Your task to perform on an android device: check out phone information Image 0: 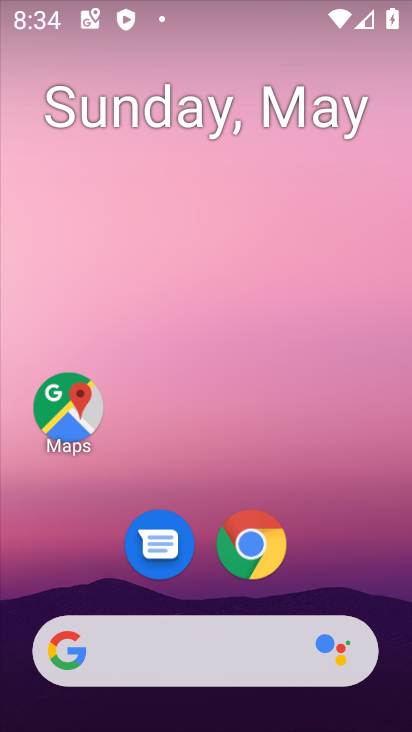
Step 0: drag from (313, 529) to (264, 34)
Your task to perform on an android device: check out phone information Image 1: 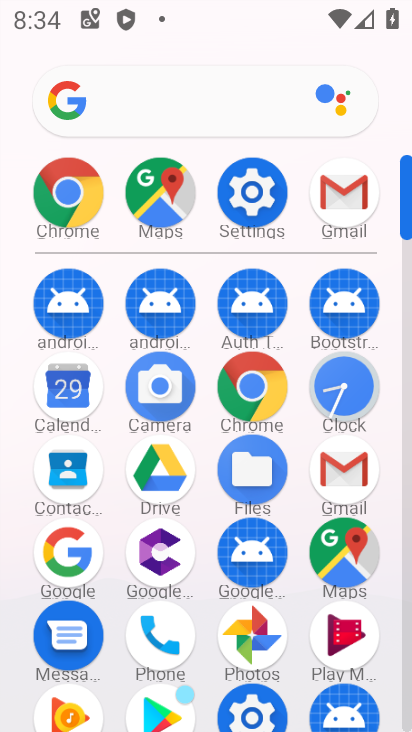
Step 1: drag from (2, 572) to (18, 175)
Your task to perform on an android device: check out phone information Image 2: 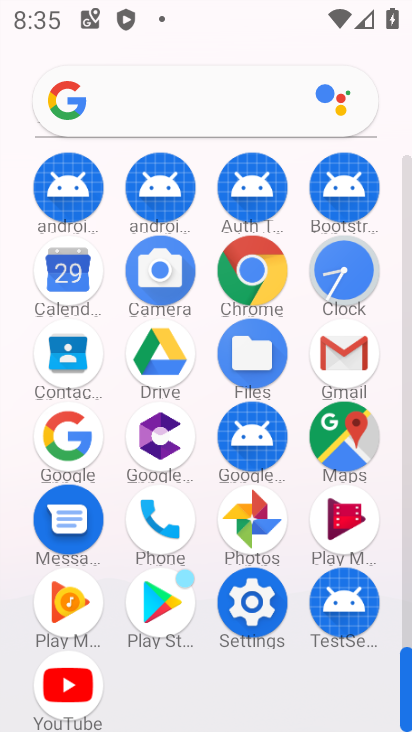
Step 2: click (251, 599)
Your task to perform on an android device: check out phone information Image 3: 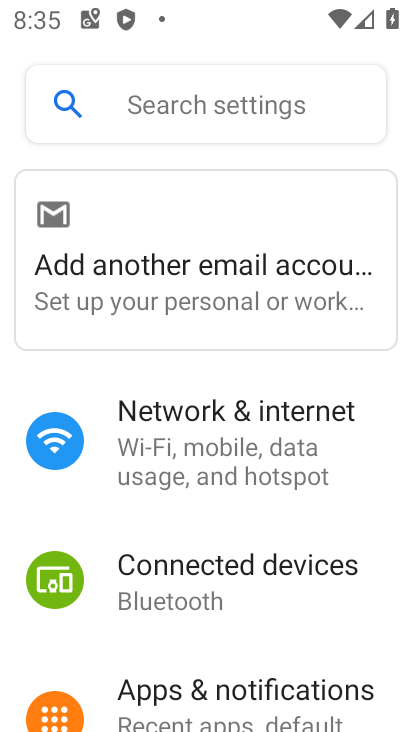
Step 3: drag from (308, 687) to (275, 163)
Your task to perform on an android device: check out phone information Image 4: 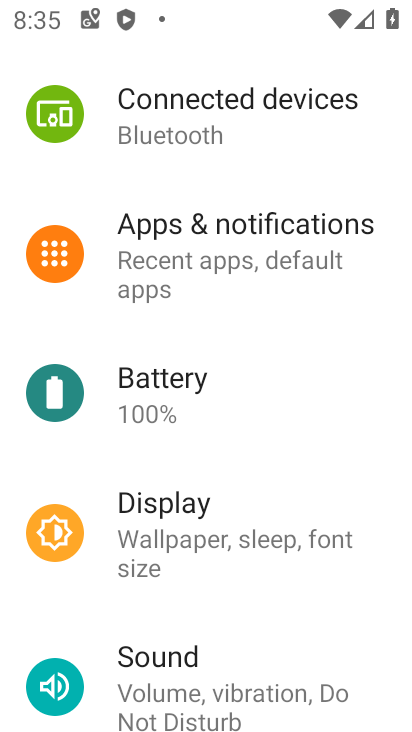
Step 4: drag from (262, 568) to (267, 133)
Your task to perform on an android device: check out phone information Image 5: 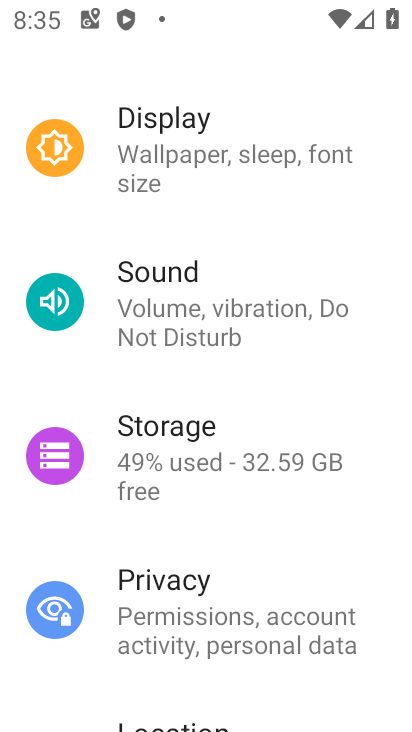
Step 5: drag from (254, 665) to (235, 121)
Your task to perform on an android device: check out phone information Image 6: 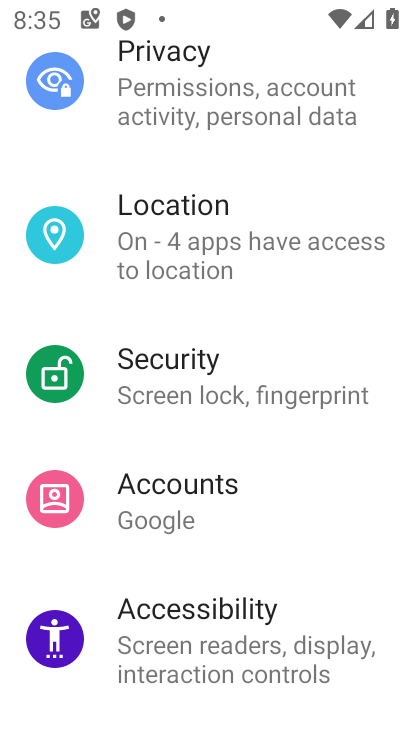
Step 6: drag from (268, 610) to (264, 109)
Your task to perform on an android device: check out phone information Image 7: 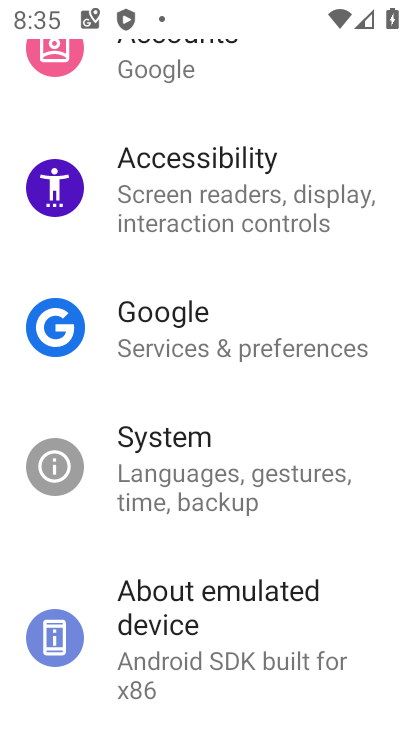
Step 7: drag from (207, 624) to (263, 163)
Your task to perform on an android device: check out phone information Image 8: 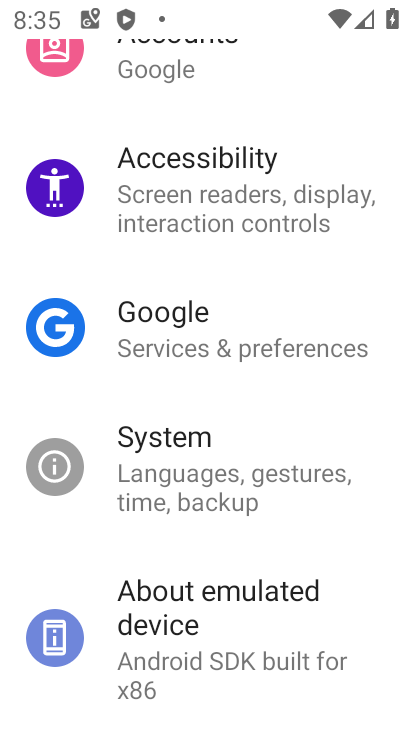
Step 8: click (226, 633)
Your task to perform on an android device: check out phone information Image 9: 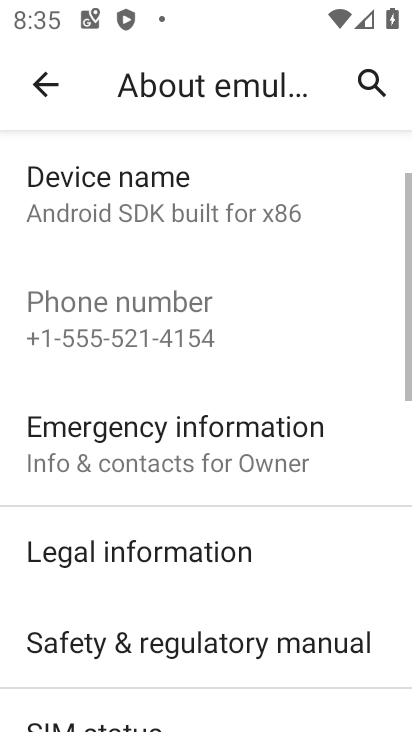
Step 9: task complete